Your task to perform on an android device: View the shopping cart on costco. Image 0: 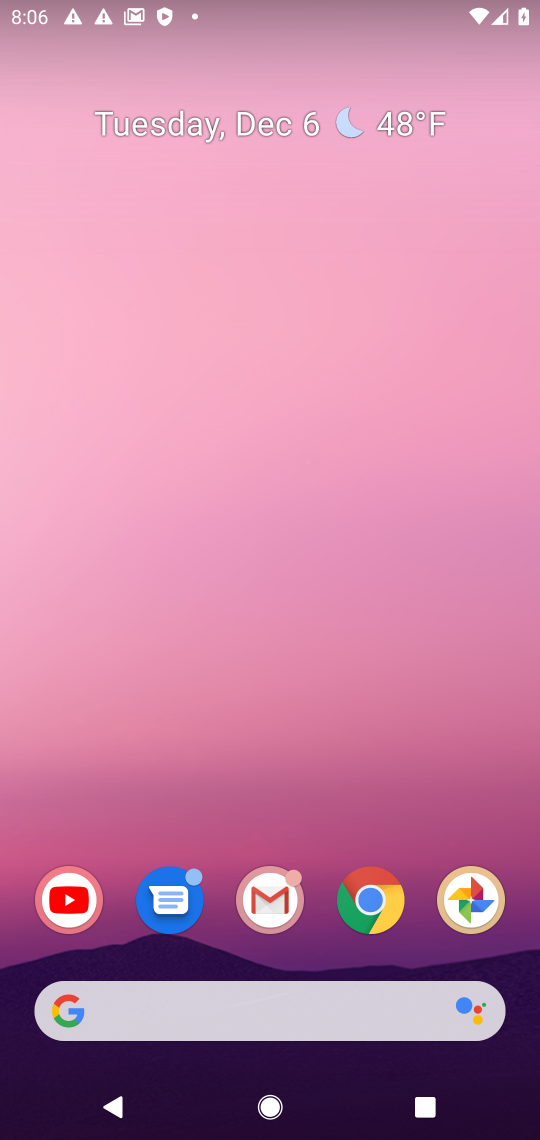
Step 0: drag from (289, 786) to (333, 362)
Your task to perform on an android device: View the shopping cart on costco. Image 1: 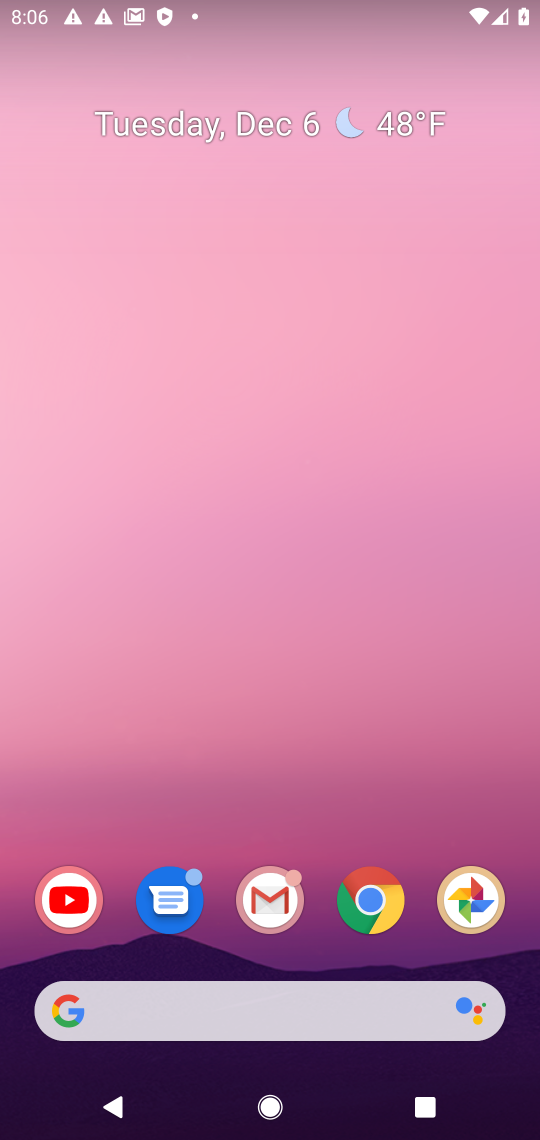
Step 1: drag from (262, 982) to (262, 428)
Your task to perform on an android device: View the shopping cart on costco. Image 2: 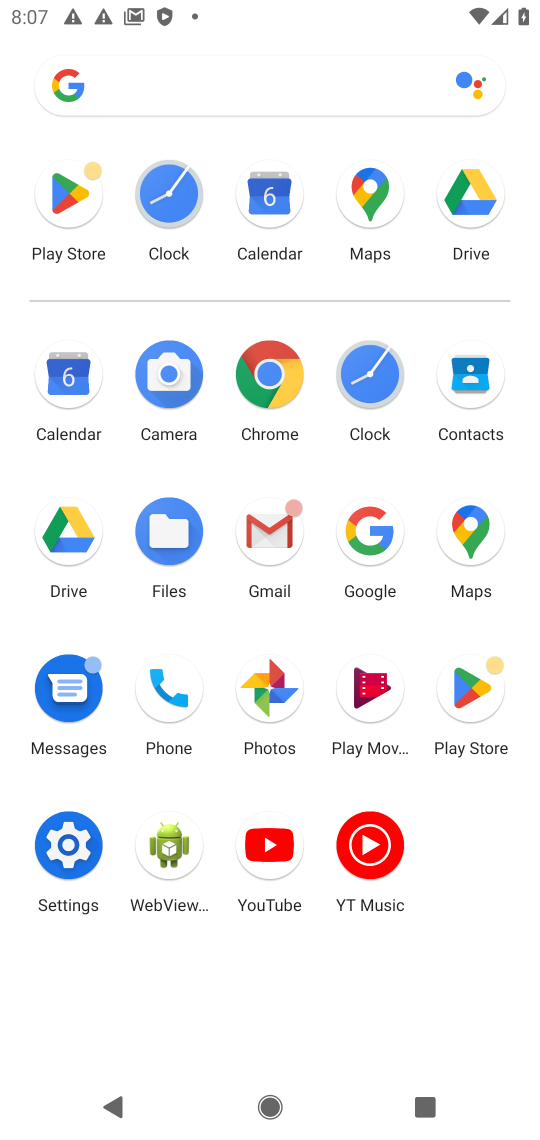
Step 2: click (379, 532)
Your task to perform on an android device: View the shopping cart on costco. Image 3: 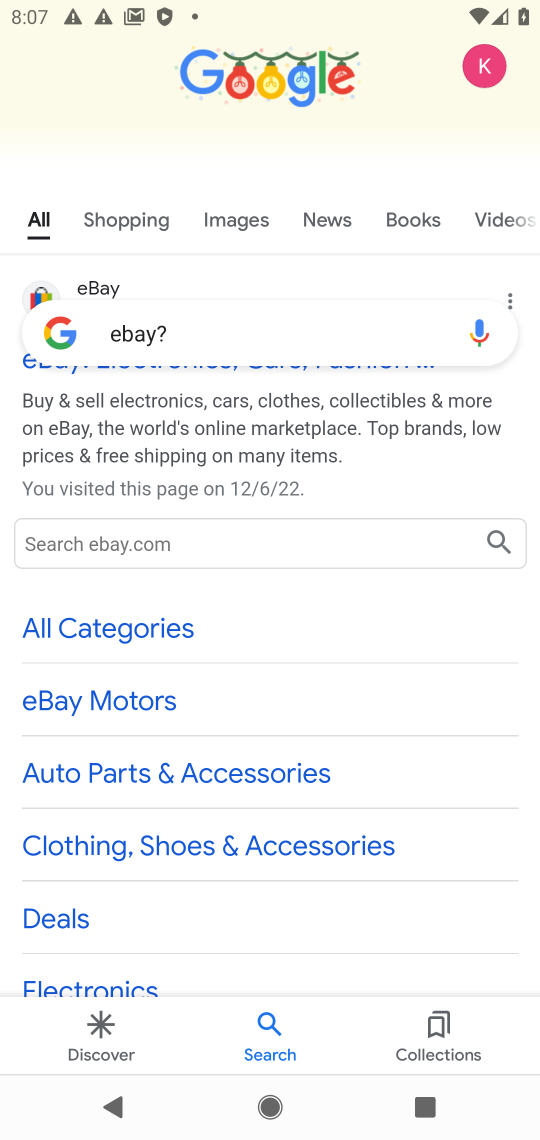
Step 3: click (141, 334)
Your task to perform on an android device: View the shopping cart on costco. Image 4: 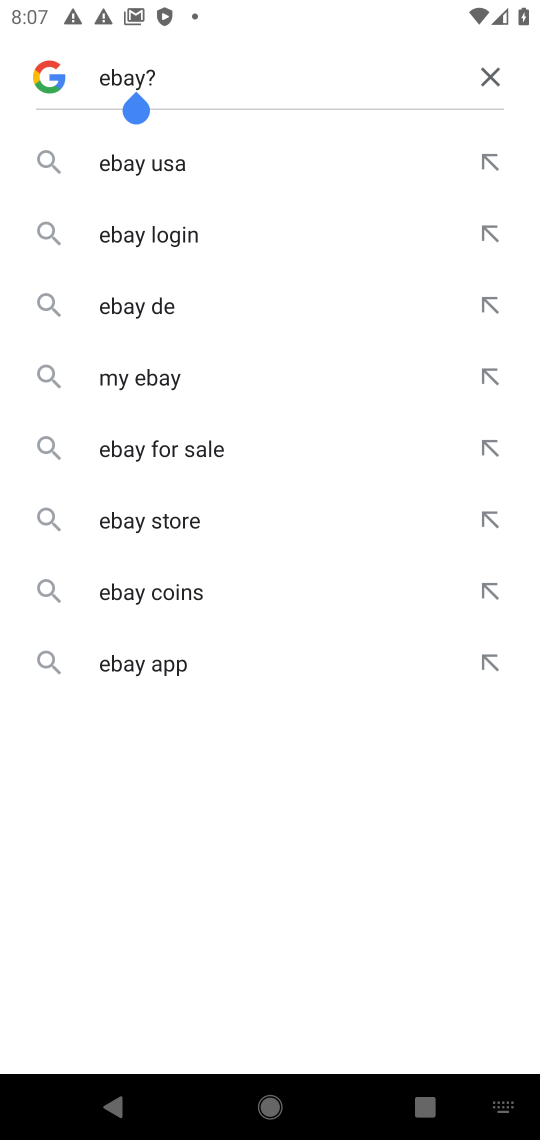
Step 4: click (499, 79)
Your task to perform on an android device: View the shopping cart on costco. Image 5: 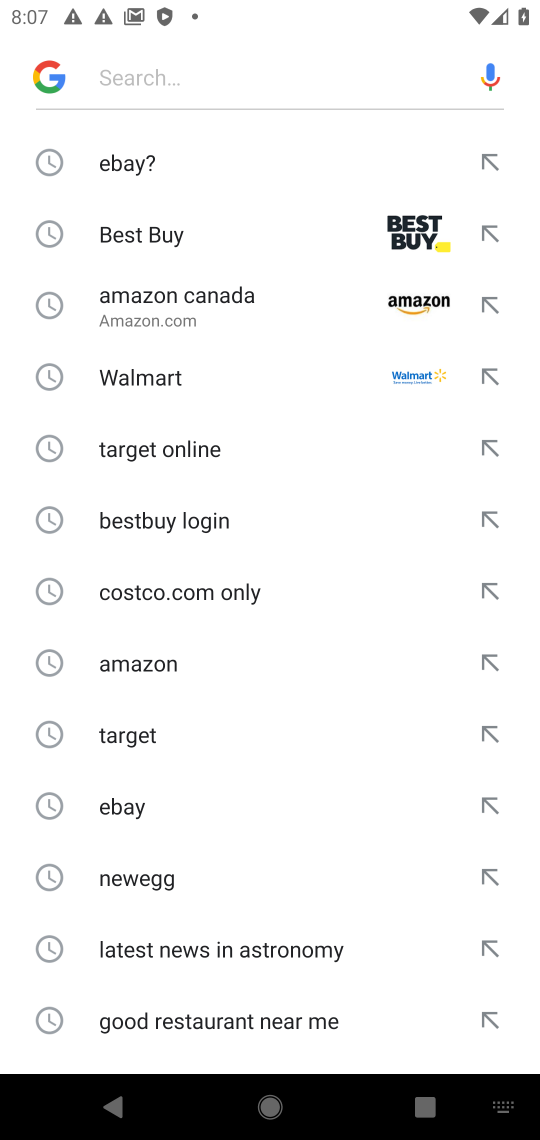
Step 5: click (143, 588)
Your task to perform on an android device: View the shopping cart on costco. Image 6: 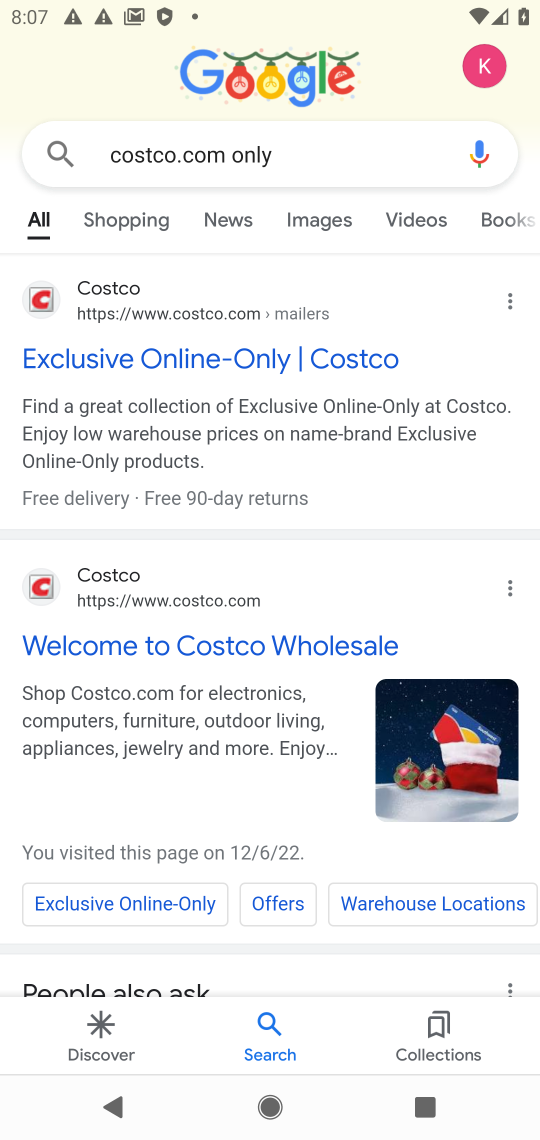
Step 6: click (158, 639)
Your task to perform on an android device: View the shopping cart on costco. Image 7: 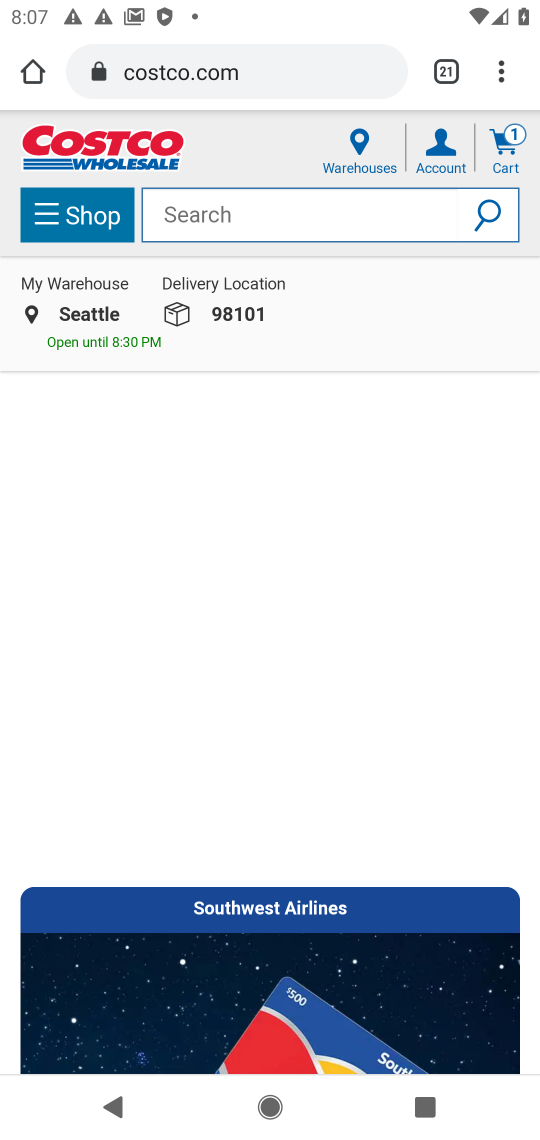
Step 7: click (494, 146)
Your task to perform on an android device: View the shopping cart on costco. Image 8: 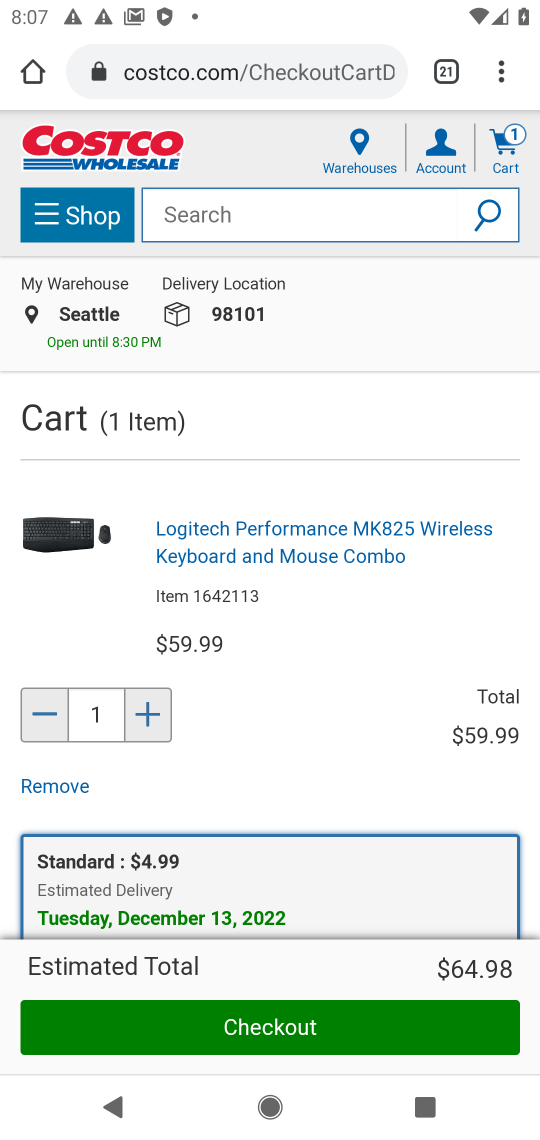
Step 8: task complete